Your task to perform on an android device: toggle javascript in the chrome app Image 0: 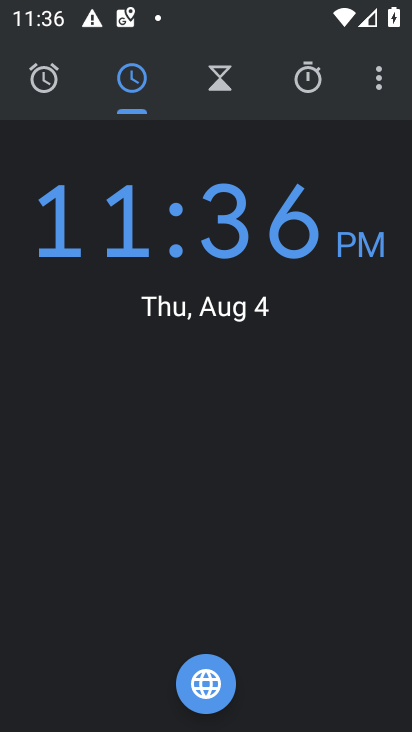
Step 0: press home button
Your task to perform on an android device: toggle javascript in the chrome app Image 1: 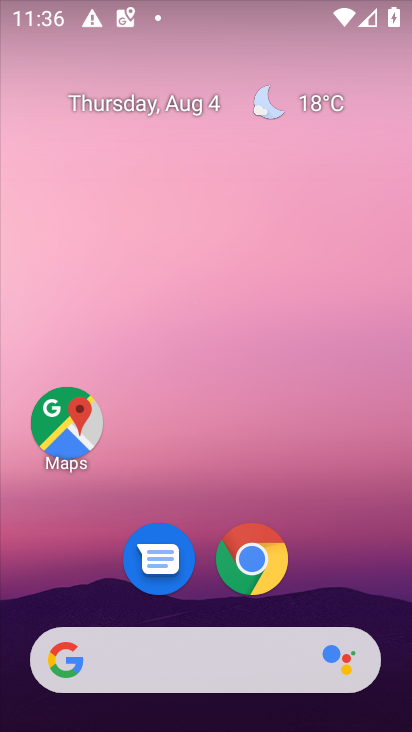
Step 1: click (236, 552)
Your task to perform on an android device: toggle javascript in the chrome app Image 2: 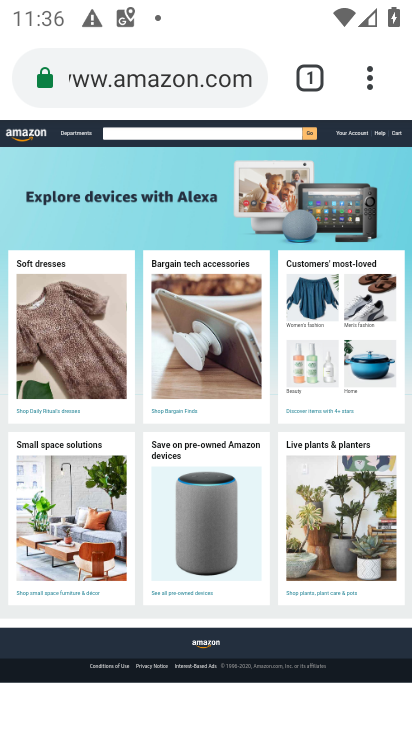
Step 2: click (371, 76)
Your task to perform on an android device: toggle javascript in the chrome app Image 3: 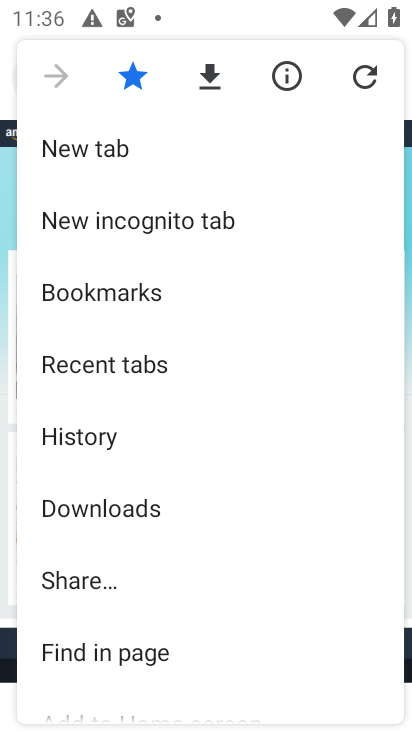
Step 3: drag from (318, 650) to (385, 254)
Your task to perform on an android device: toggle javascript in the chrome app Image 4: 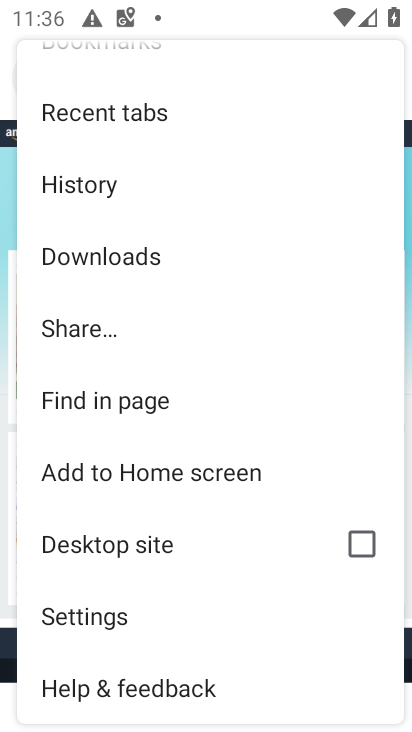
Step 4: click (105, 613)
Your task to perform on an android device: toggle javascript in the chrome app Image 5: 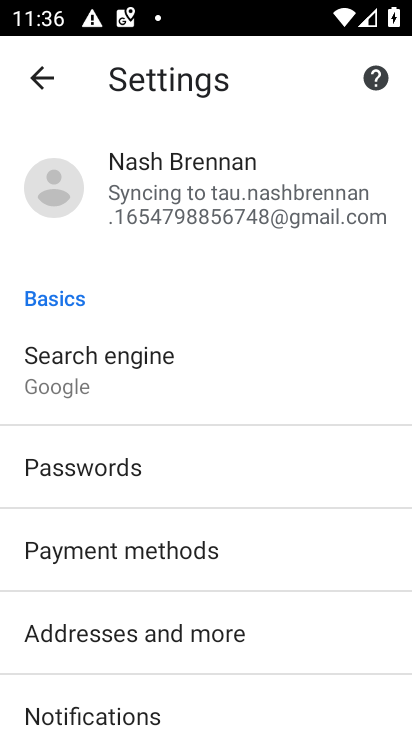
Step 5: drag from (356, 697) to (272, 118)
Your task to perform on an android device: toggle javascript in the chrome app Image 6: 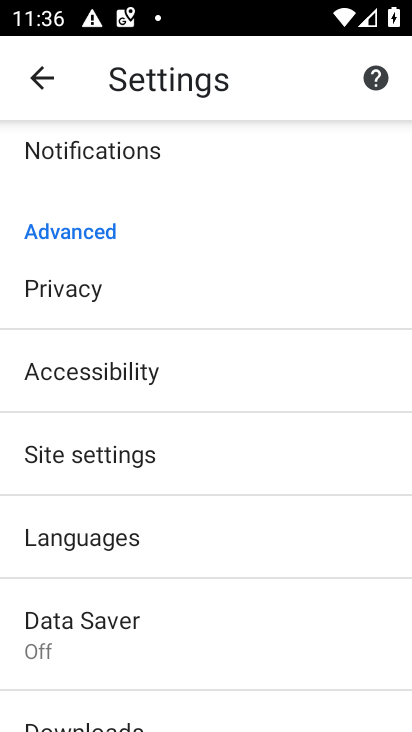
Step 6: click (75, 448)
Your task to perform on an android device: toggle javascript in the chrome app Image 7: 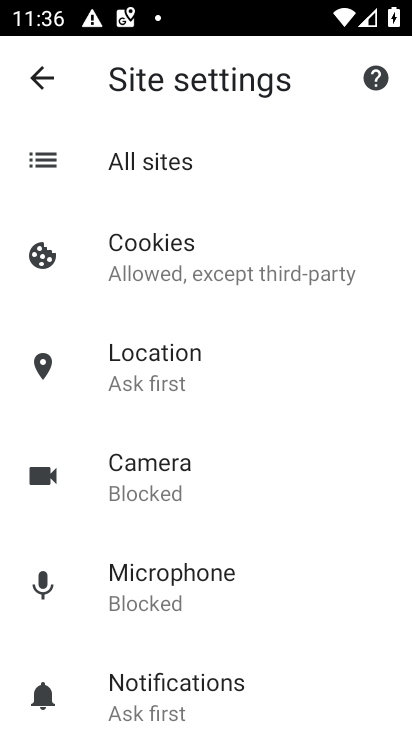
Step 7: drag from (359, 686) to (260, 113)
Your task to perform on an android device: toggle javascript in the chrome app Image 8: 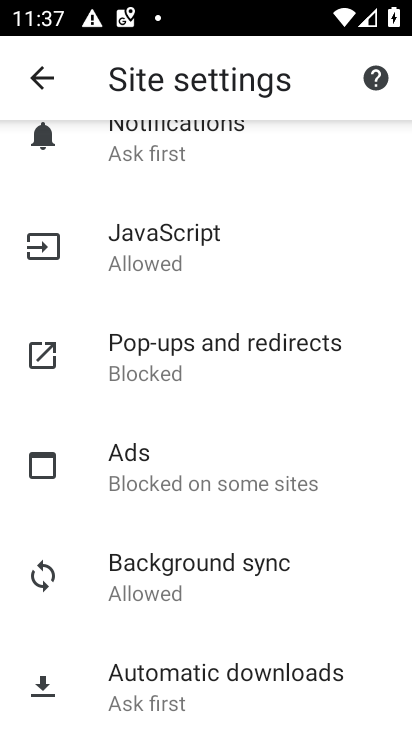
Step 8: click (200, 261)
Your task to perform on an android device: toggle javascript in the chrome app Image 9: 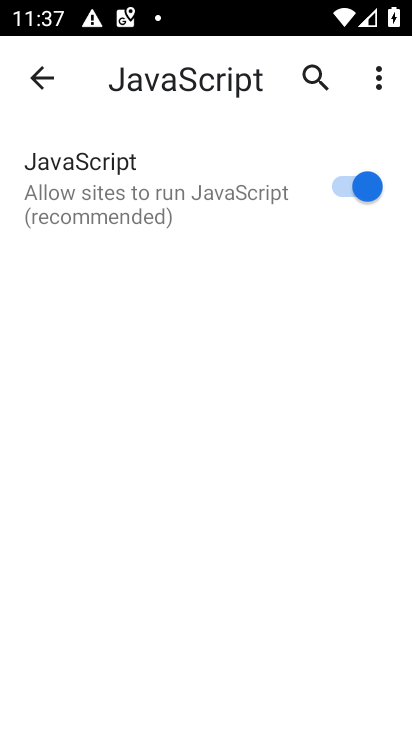
Step 9: task complete